Your task to perform on an android device: toggle notifications settings in the gmail app Image 0: 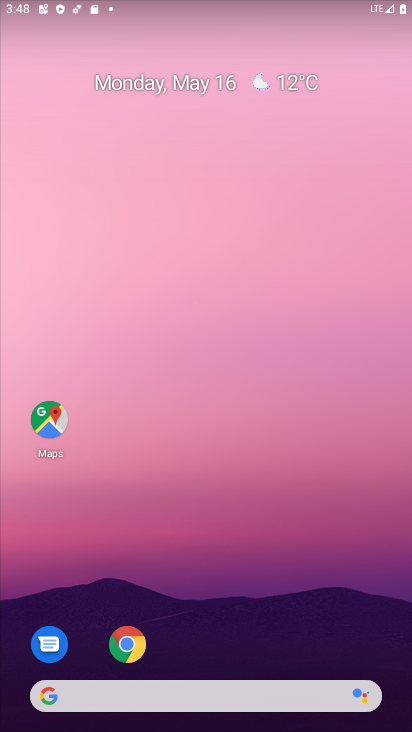
Step 0: drag from (214, 628) to (262, 80)
Your task to perform on an android device: toggle notifications settings in the gmail app Image 1: 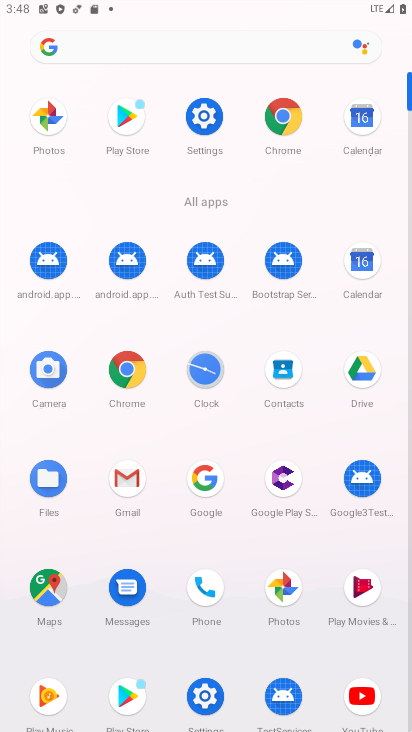
Step 1: click (122, 469)
Your task to perform on an android device: toggle notifications settings in the gmail app Image 2: 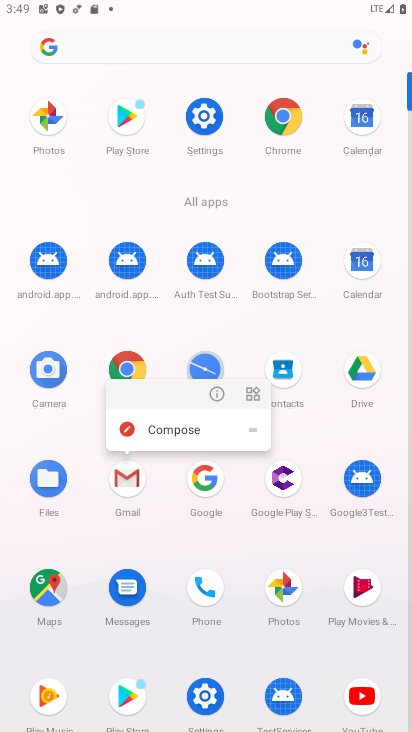
Step 2: click (218, 395)
Your task to perform on an android device: toggle notifications settings in the gmail app Image 3: 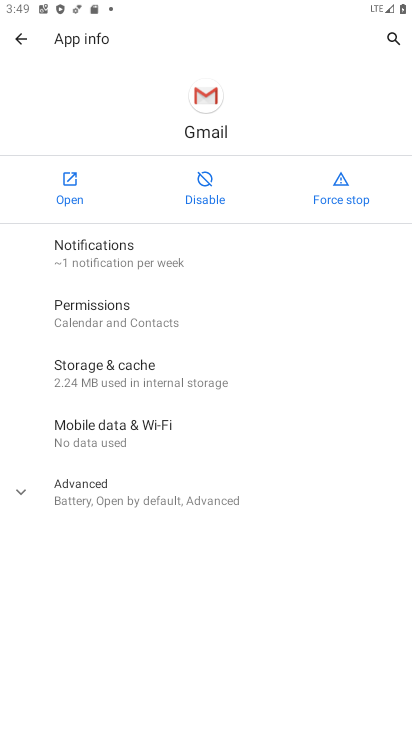
Step 3: click (134, 251)
Your task to perform on an android device: toggle notifications settings in the gmail app Image 4: 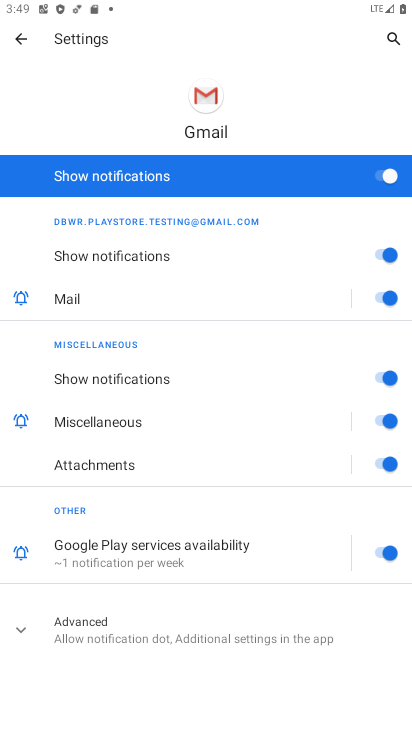
Step 4: click (385, 177)
Your task to perform on an android device: toggle notifications settings in the gmail app Image 5: 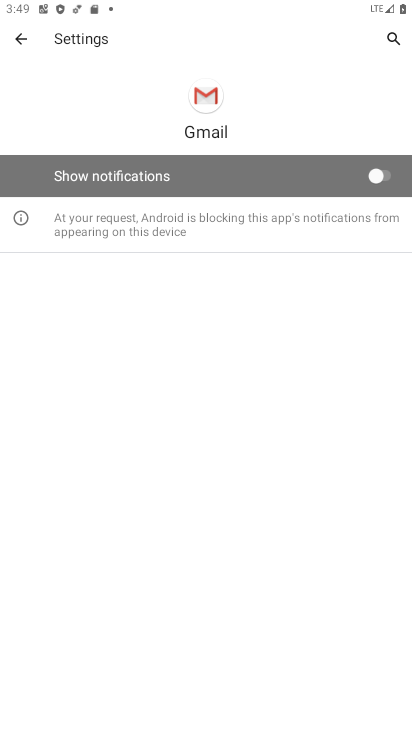
Step 5: task complete